Your task to perform on an android device: Search for hotels in Miami Image 0: 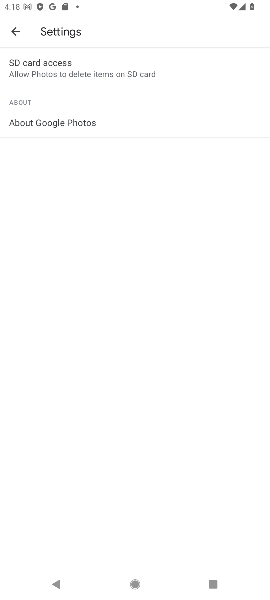
Step 0: press home button
Your task to perform on an android device: Search for hotels in Miami Image 1: 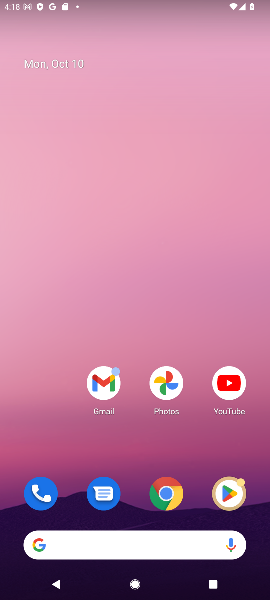
Step 1: click (99, 540)
Your task to perform on an android device: Search for hotels in Miami Image 2: 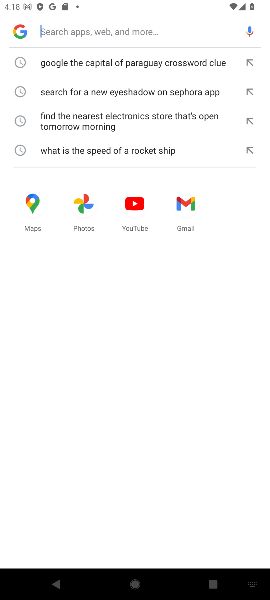
Step 2: type "Search for hotels in Miami"
Your task to perform on an android device: Search for hotels in Miami Image 3: 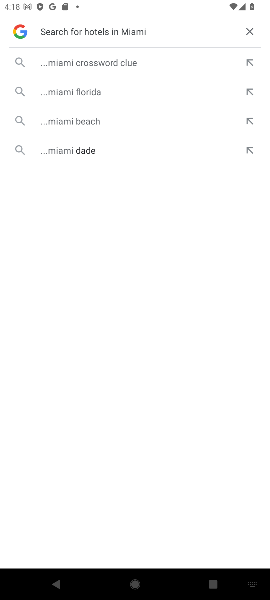
Step 3: click (170, 39)
Your task to perform on an android device: Search for hotels in Miami Image 4: 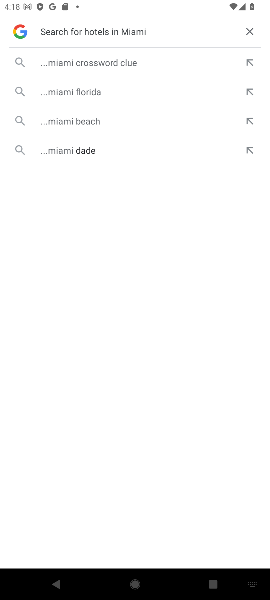
Step 4: click (170, 39)
Your task to perform on an android device: Search for hotels in Miami Image 5: 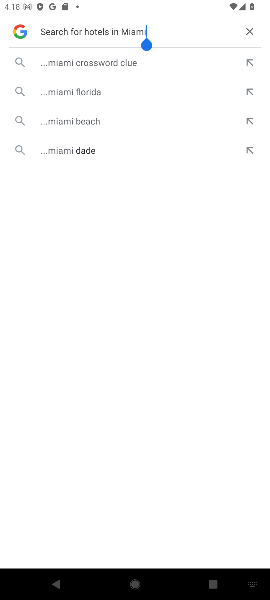
Step 5: task complete